Your task to perform on an android device: toggle data saver in the chrome app Image 0: 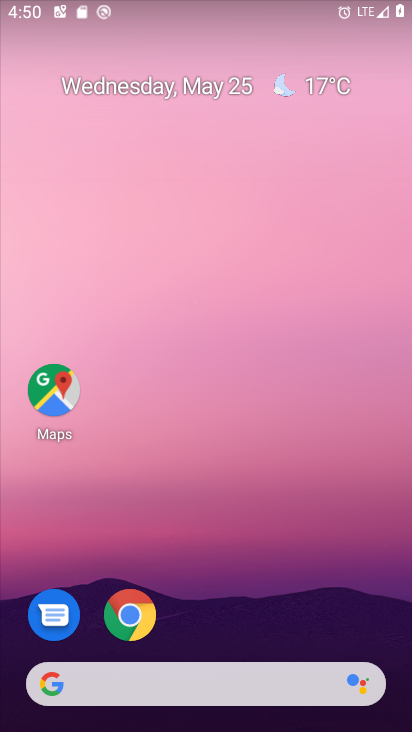
Step 0: click (137, 615)
Your task to perform on an android device: toggle data saver in the chrome app Image 1: 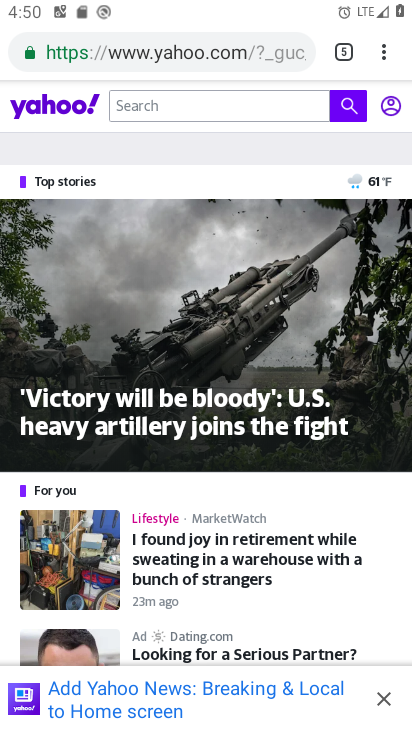
Step 1: click (380, 53)
Your task to perform on an android device: toggle data saver in the chrome app Image 2: 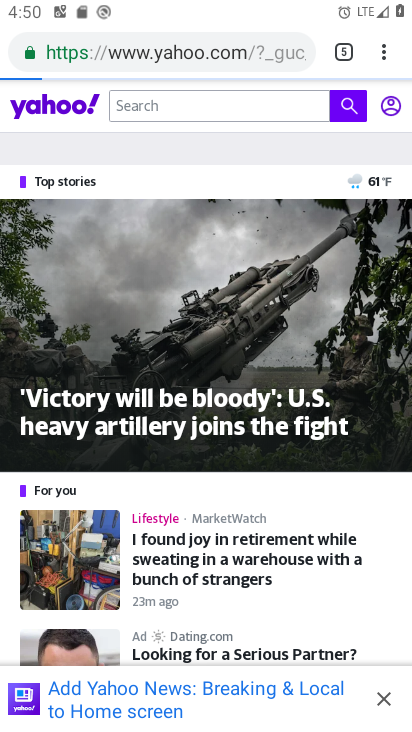
Step 2: click (381, 55)
Your task to perform on an android device: toggle data saver in the chrome app Image 3: 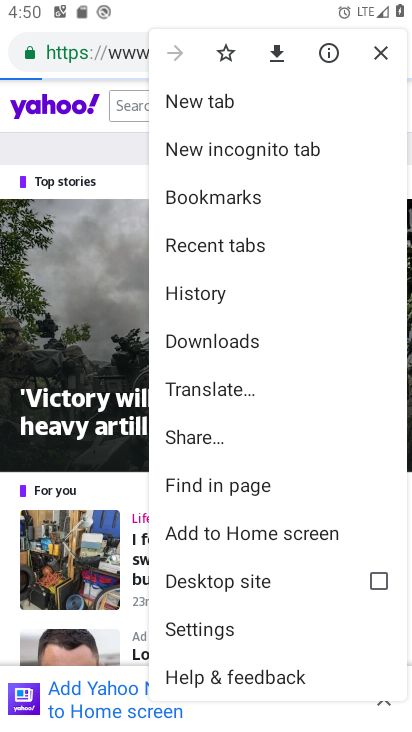
Step 3: click (228, 634)
Your task to perform on an android device: toggle data saver in the chrome app Image 4: 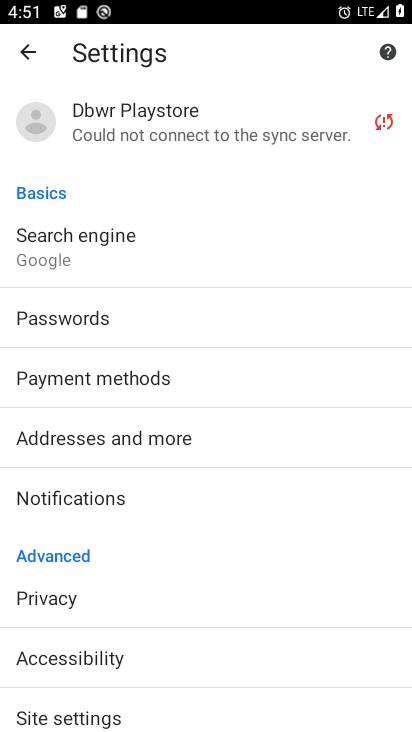
Step 4: drag from (176, 643) to (166, 162)
Your task to perform on an android device: toggle data saver in the chrome app Image 5: 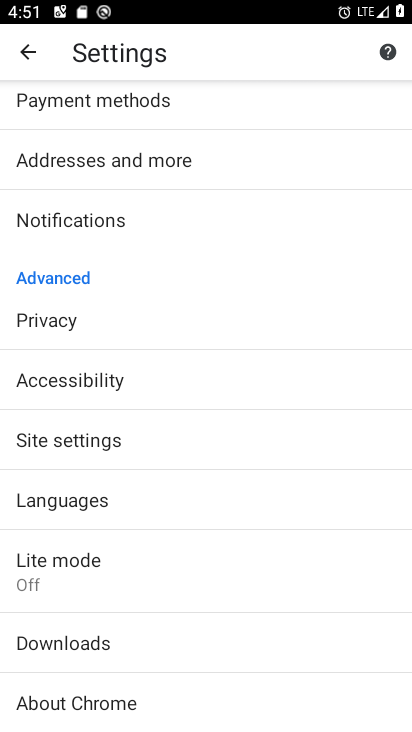
Step 5: click (123, 555)
Your task to perform on an android device: toggle data saver in the chrome app Image 6: 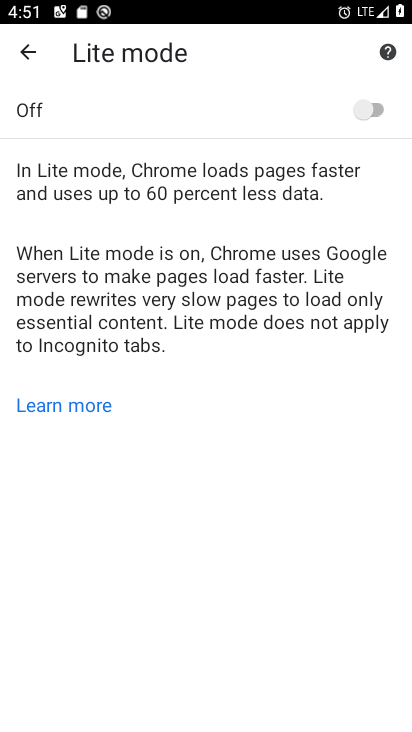
Step 6: click (369, 106)
Your task to perform on an android device: toggle data saver in the chrome app Image 7: 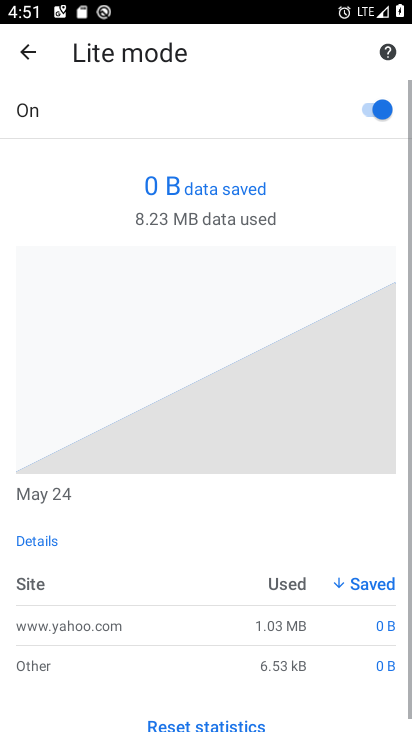
Step 7: task complete